Your task to perform on an android device: check android version Image 0: 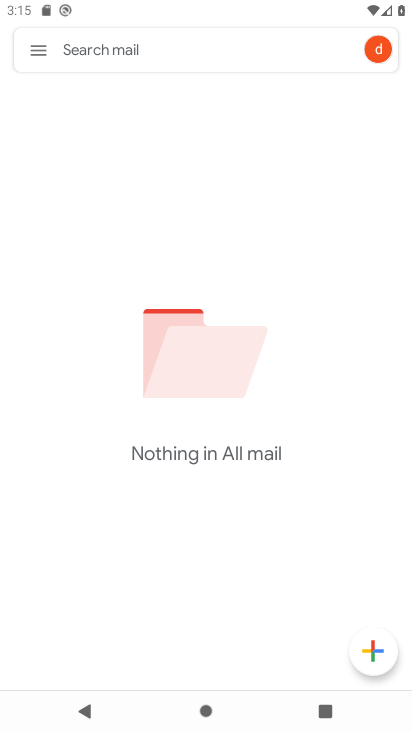
Step 0: press home button
Your task to perform on an android device: check android version Image 1: 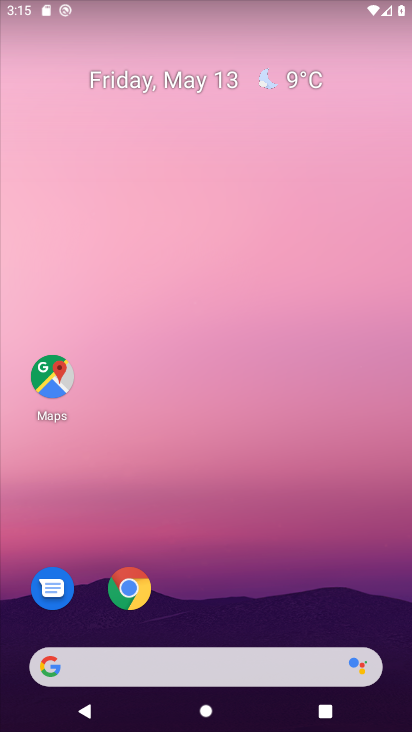
Step 1: drag from (322, 578) to (250, 80)
Your task to perform on an android device: check android version Image 2: 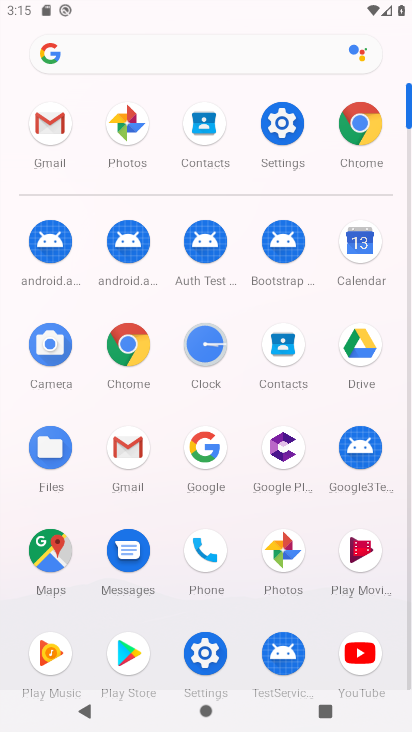
Step 2: click (285, 143)
Your task to perform on an android device: check android version Image 3: 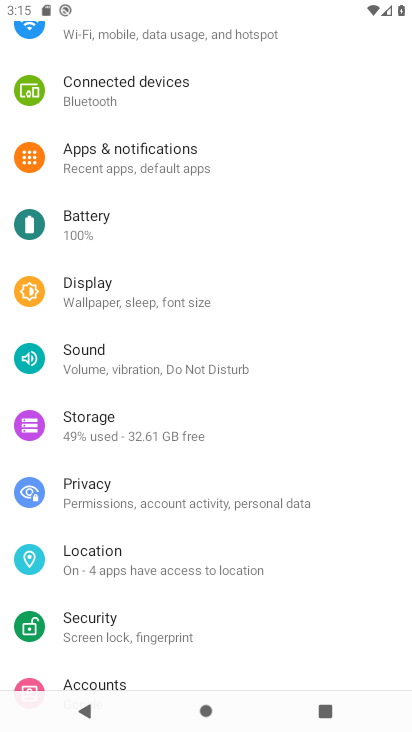
Step 3: drag from (257, 609) to (189, 262)
Your task to perform on an android device: check android version Image 4: 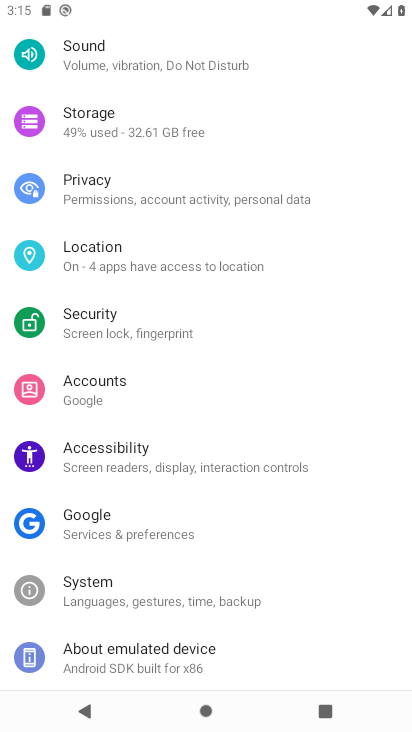
Step 4: drag from (265, 602) to (197, 320)
Your task to perform on an android device: check android version Image 5: 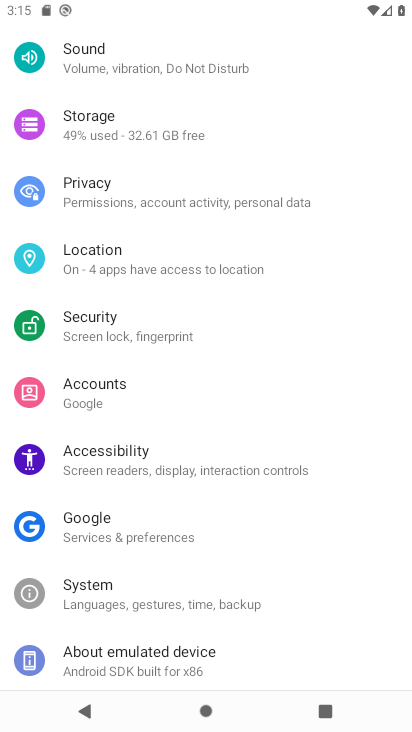
Step 5: click (169, 674)
Your task to perform on an android device: check android version Image 6: 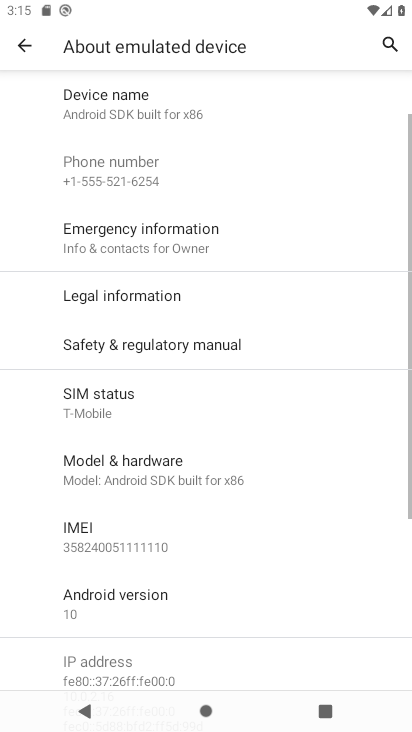
Step 6: click (193, 606)
Your task to perform on an android device: check android version Image 7: 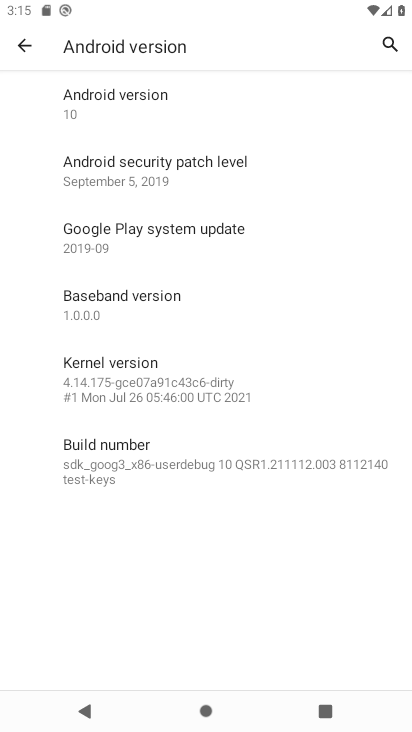
Step 7: task complete